Your task to perform on an android device: change the clock display to analog Image 0: 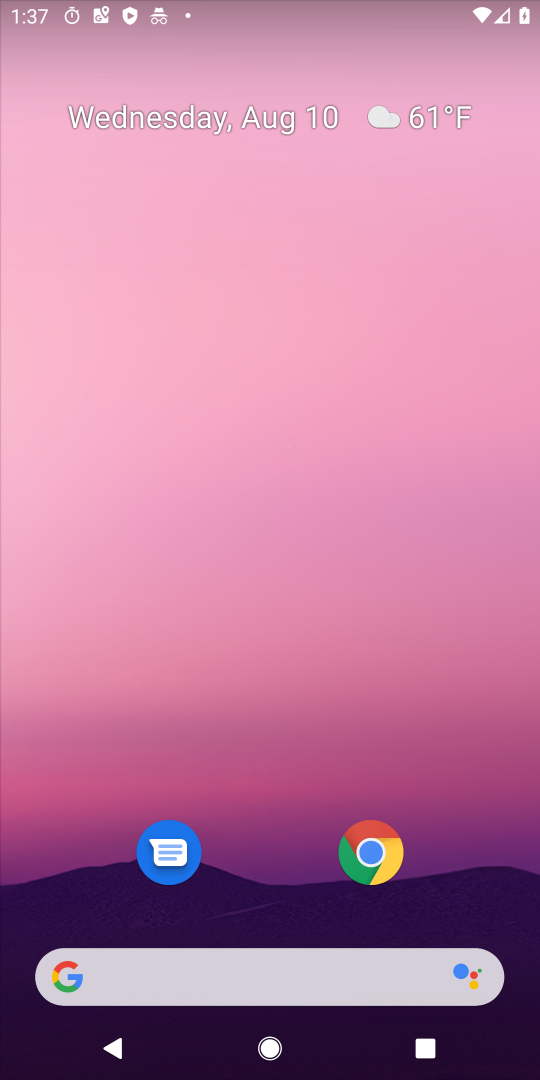
Step 0: drag from (241, 797) to (303, 157)
Your task to perform on an android device: change the clock display to analog Image 1: 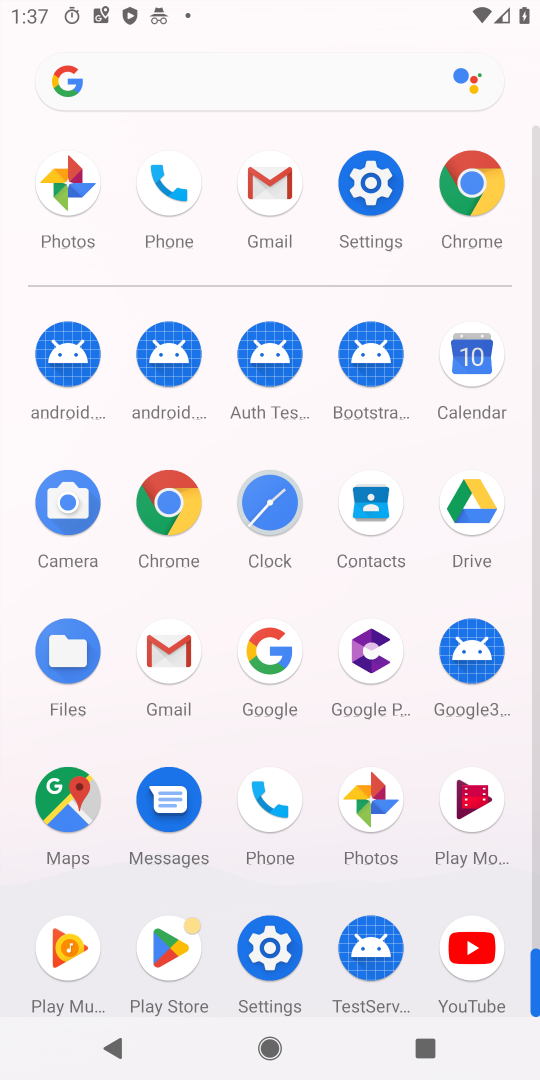
Step 1: click (273, 502)
Your task to perform on an android device: change the clock display to analog Image 2: 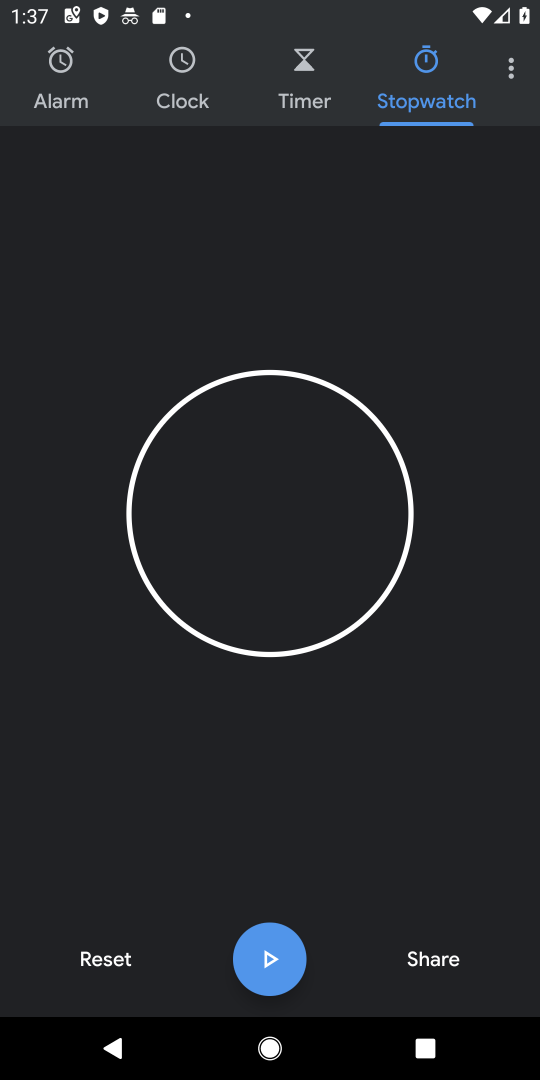
Step 2: click (509, 58)
Your task to perform on an android device: change the clock display to analog Image 3: 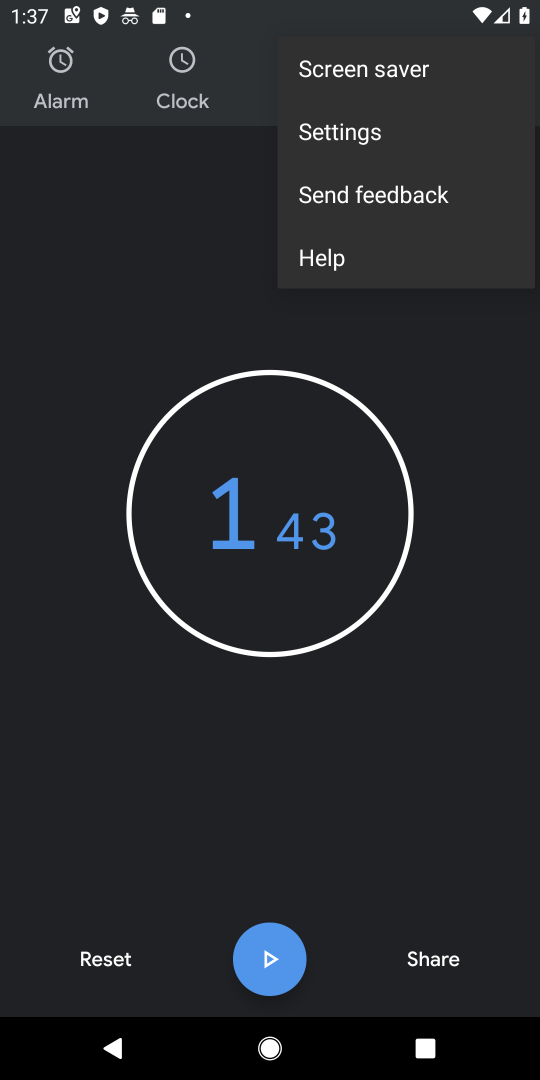
Step 3: click (321, 130)
Your task to perform on an android device: change the clock display to analog Image 4: 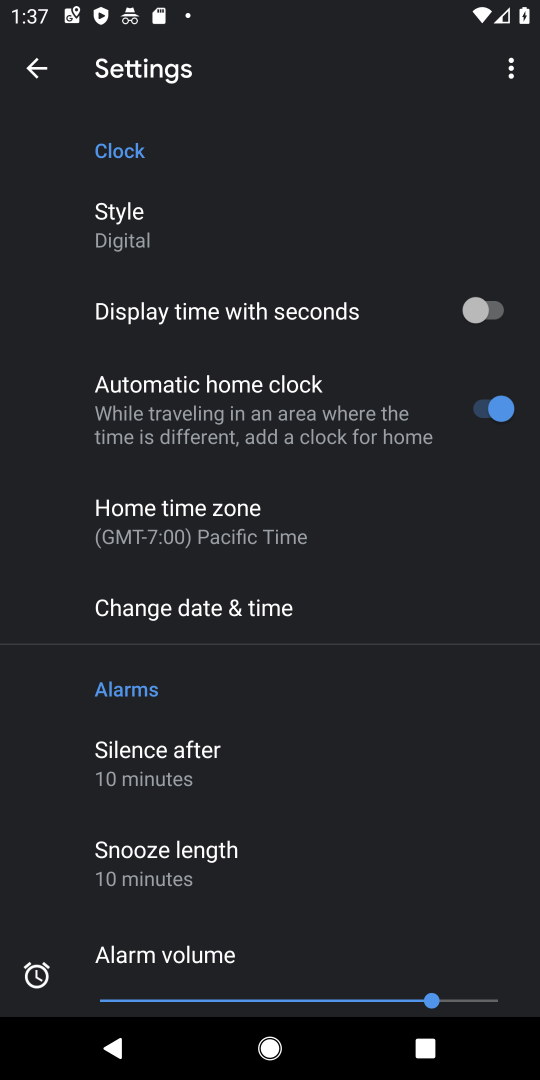
Step 4: click (169, 233)
Your task to perform on an android device: change the clock display to analog Image 5: 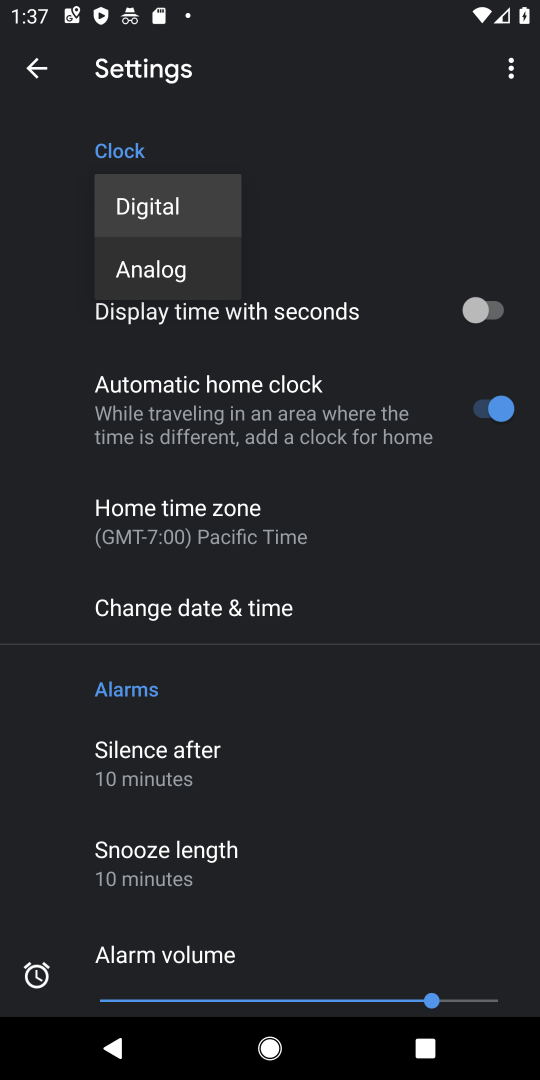
Step 5: click (182, 265)
Your task to perform on an android device: change the clock display to analog Image 6: 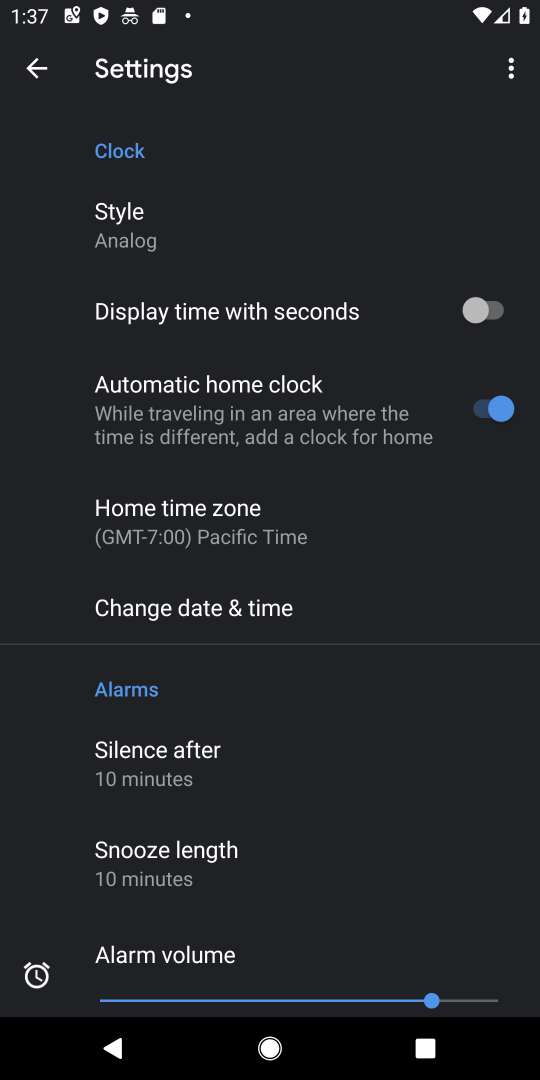
Step 6: task complete